Your task to perform on an android device: turn off javascript in the chrome app Image 0: 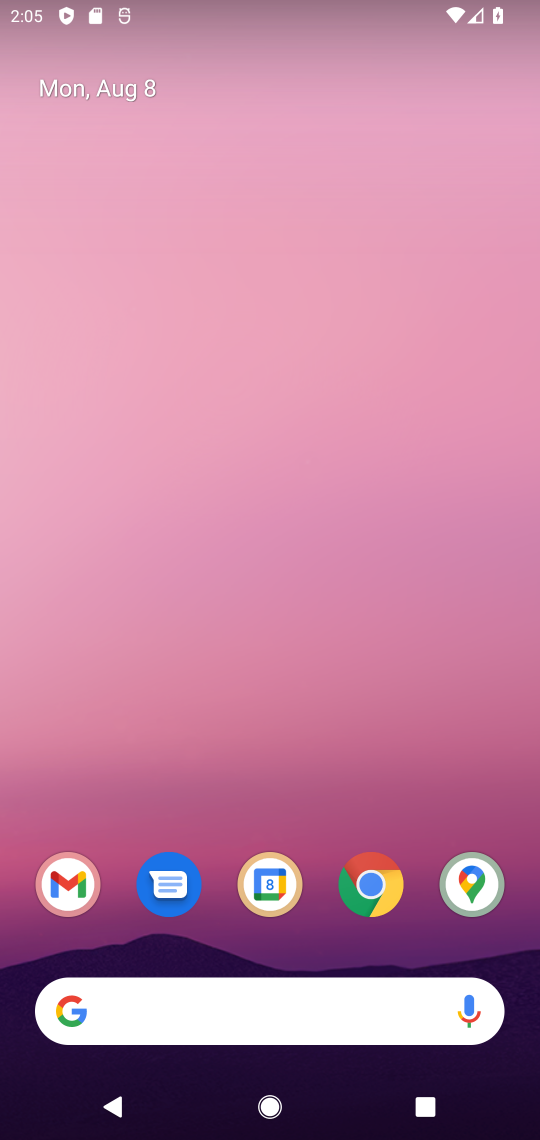
Step 0: click (376, 884)
Your task to perform on an android device: turn off javascript in the chrome app Image 1: 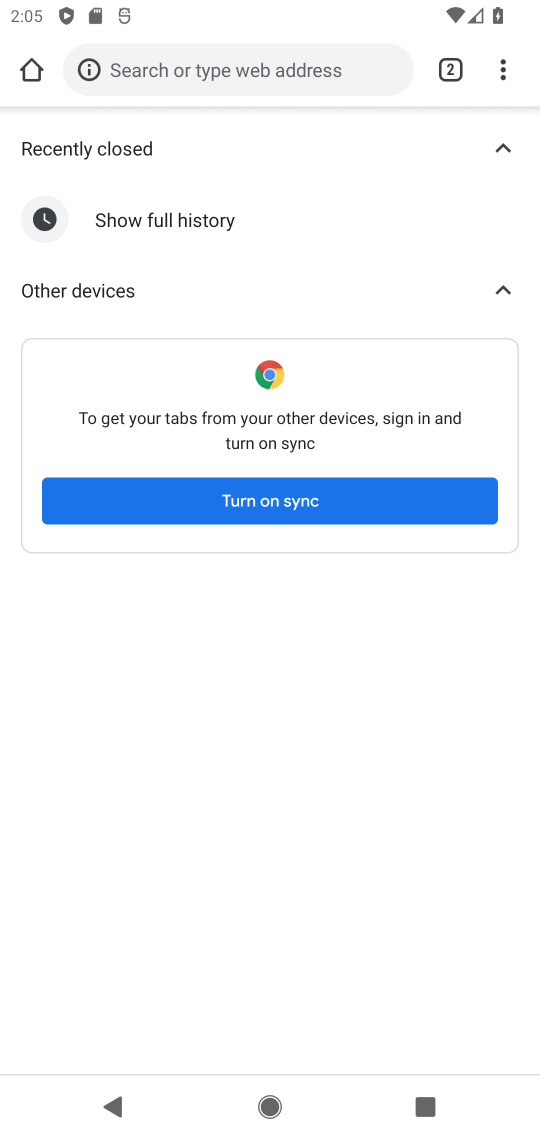
Step 1: click (499, 57)
Your task to perform on an android device: turn off javascript in the chrome app Image 2: 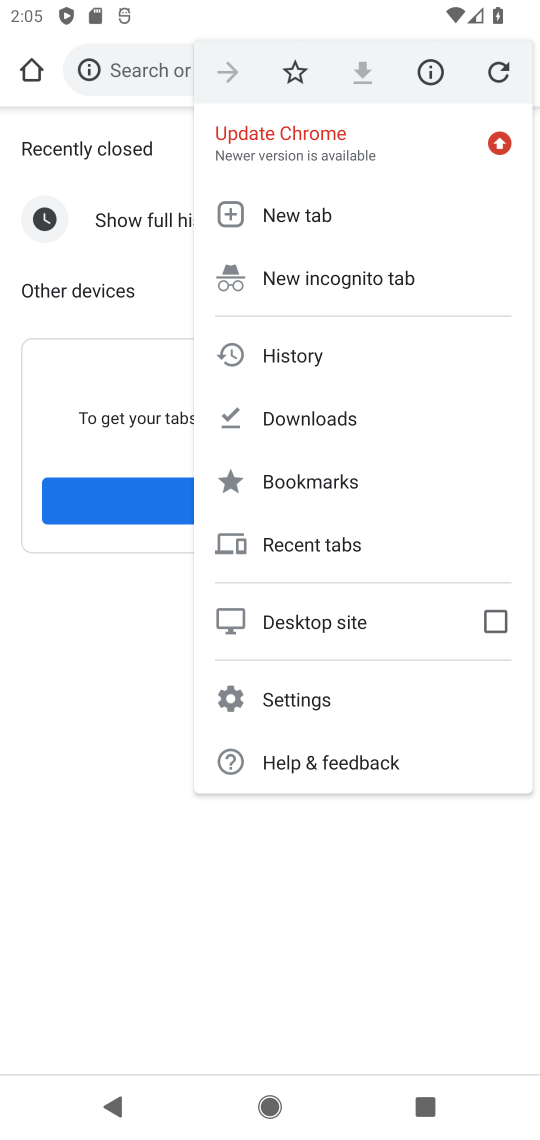
Step 2: click (303, 699)
Your task to perform on an android device: turn off javascript in the chrome app Image 3: 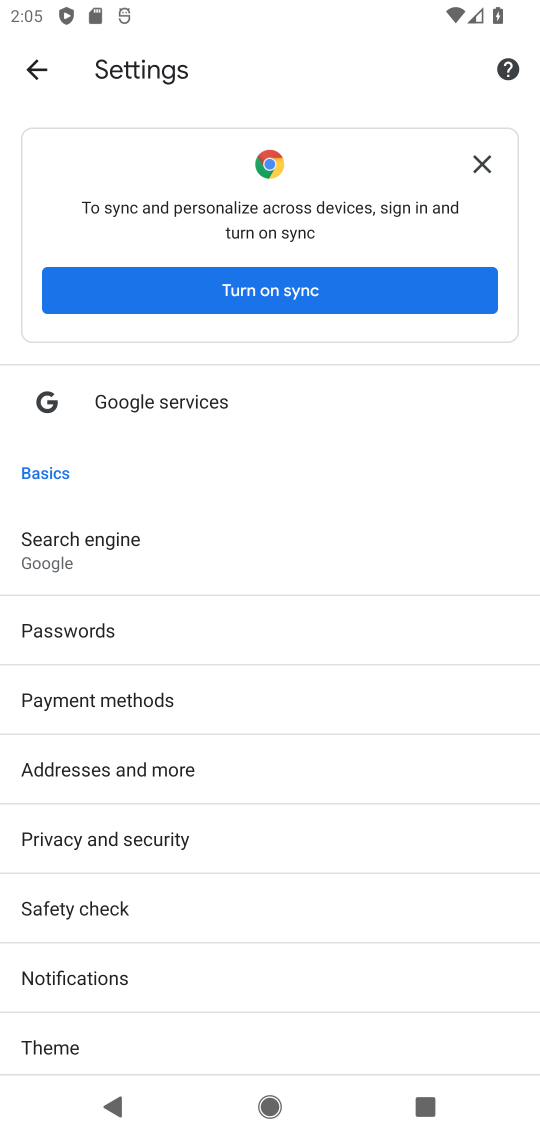
Step 3: drag from (302, 998) to (327, 551)
Your task to perform on an android device: turn off javascript in the chrome app Image 4: 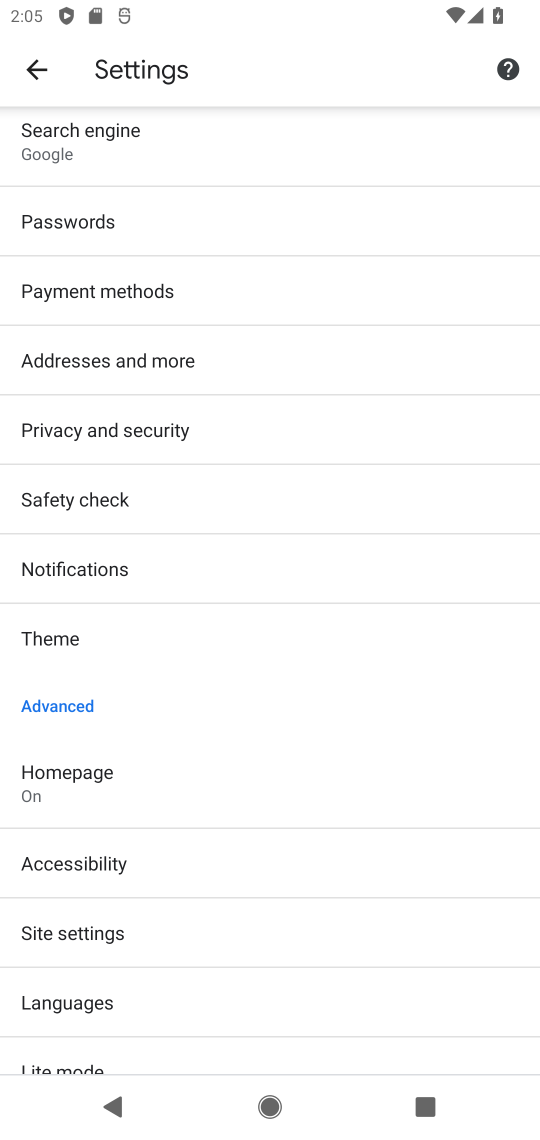
Step 4: drag from (272, 809) to (272, 284)
Your task to perform on an android device: turn off javascript in the chrome app Image 5: 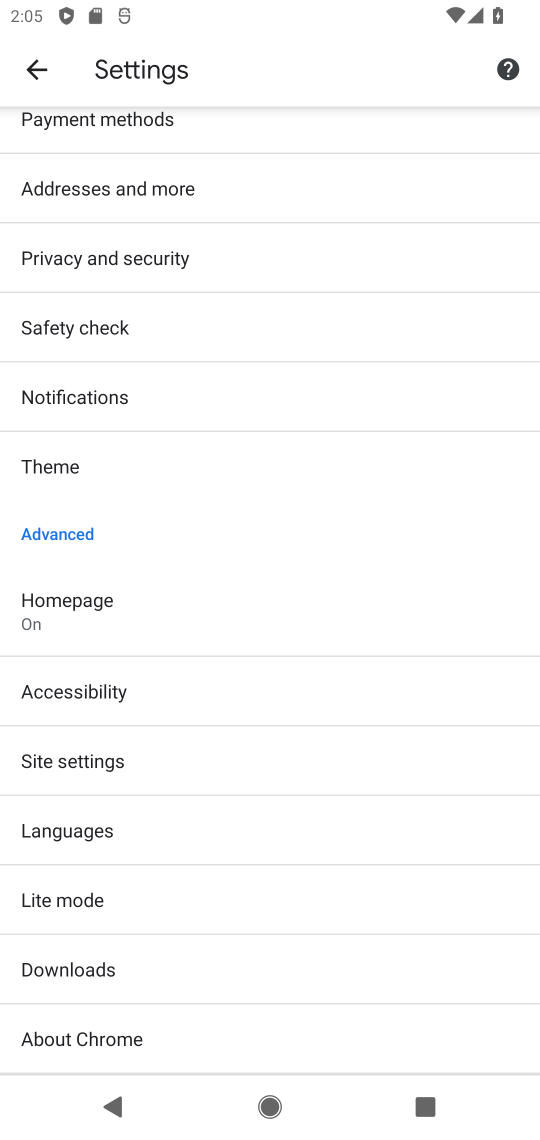
Step 5: click (103, 761)
Your task to perform on an android device: turn off javascript in the chrome app Image 6: 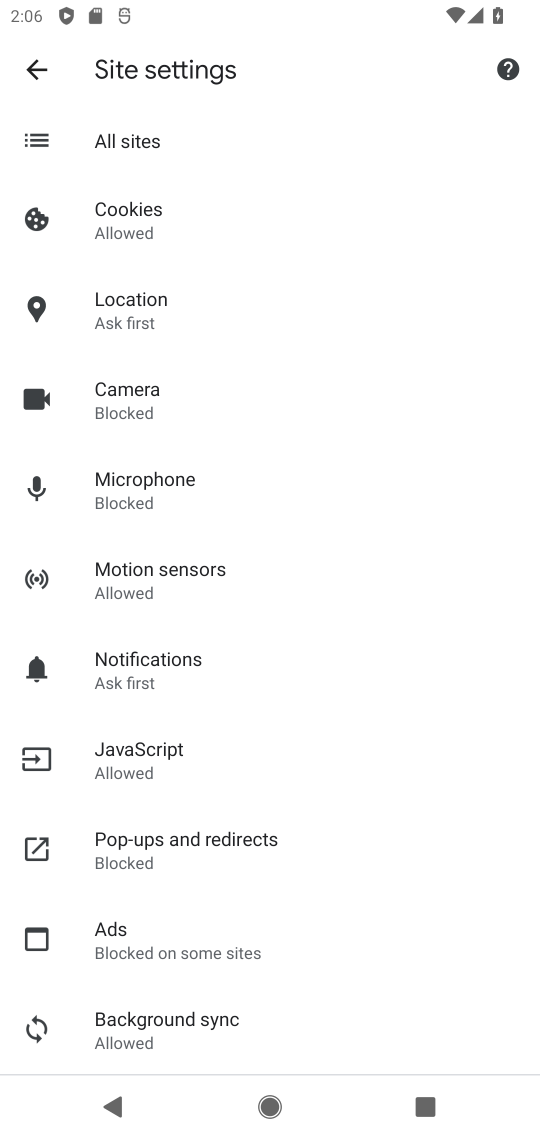
Step 6: click (159, 746)
Your task to perform on an android device: turn off javascript in the chrome app Image 7: 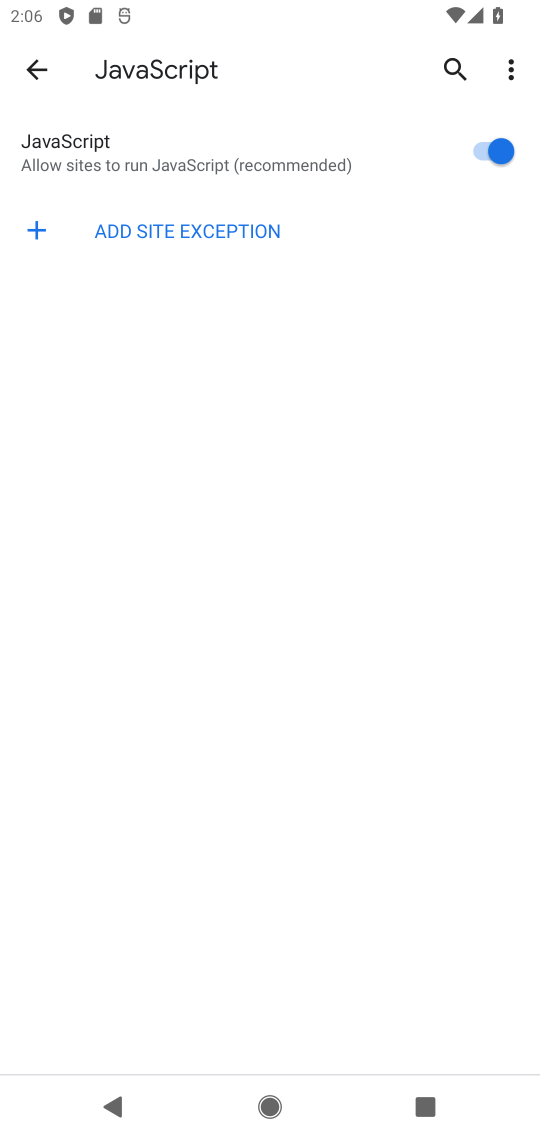
Step 7: click (501, 147)
Your task to perform on an android device: turn off javascript in the chrome app Image 8: 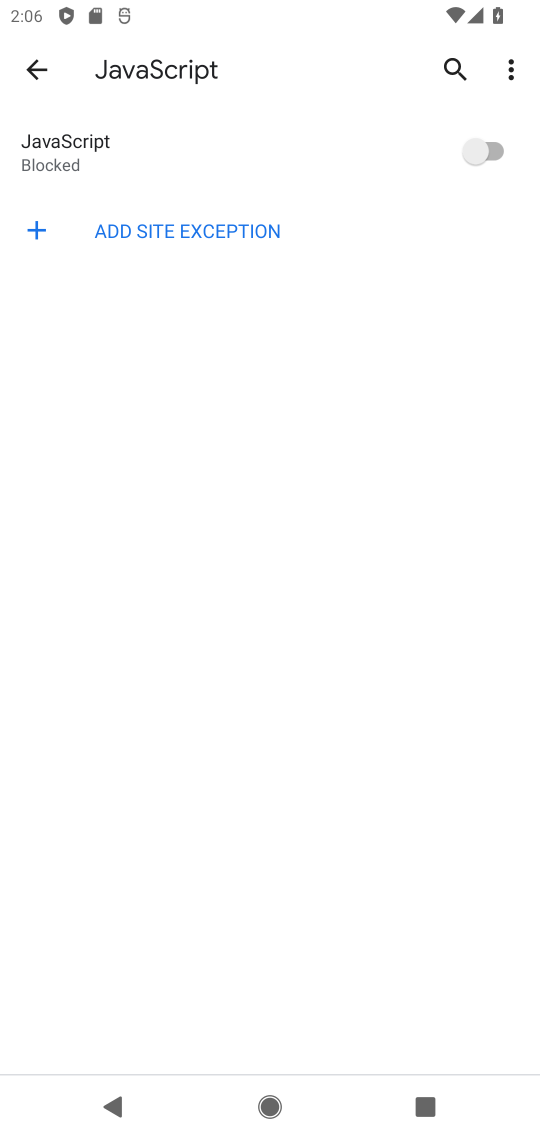
Step 8: task complete